Your task to perform on an android device: find photos in the google photos app Image 0: 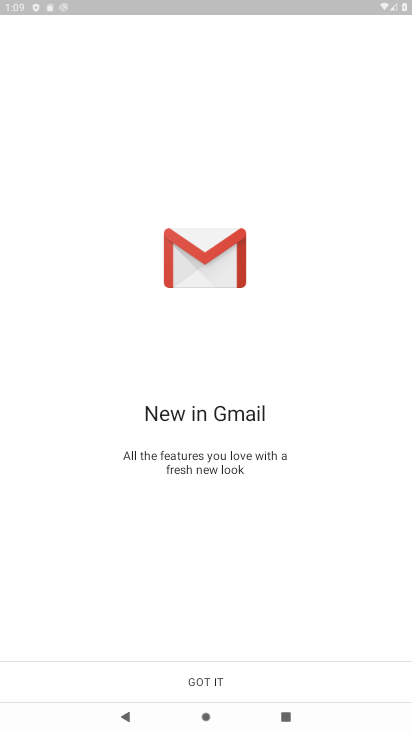
Step 0: drag from (295, 623) to (277, 291)
Your task to perform on an android device: find photos in the google photos app Image 1: 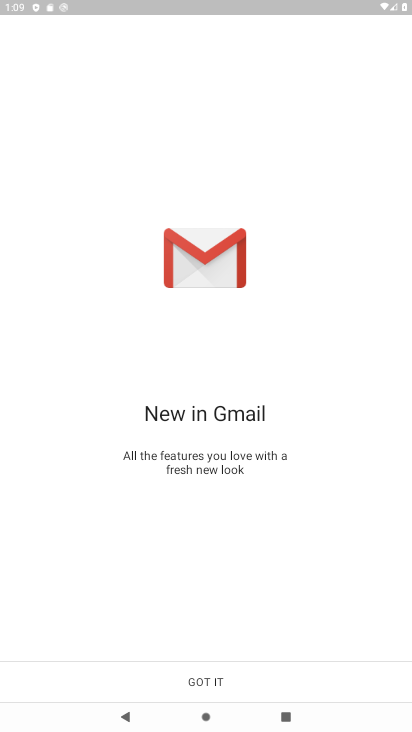
Step 1: press home button
Your task to perform on an android device: find photos in the google photos app Image 2: 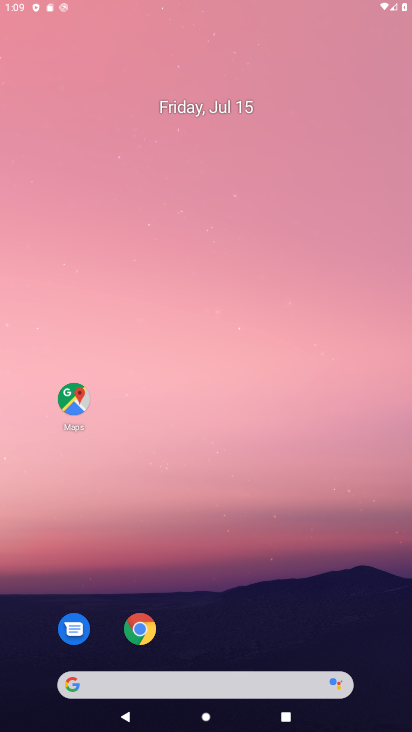
Step 2: drag from (232, 620) to (208, 62)
Your task to perform on an android device: find photos in the google photos app Image 3: 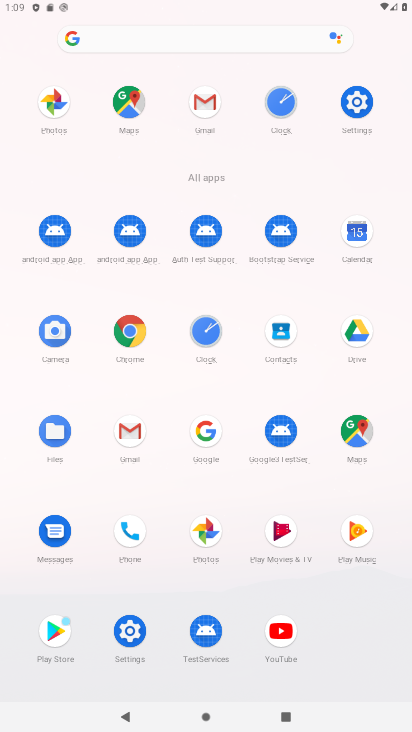
Step 3: click (196, 529)
Your task to perform on an android device: find photos in the google photos app Image 4: 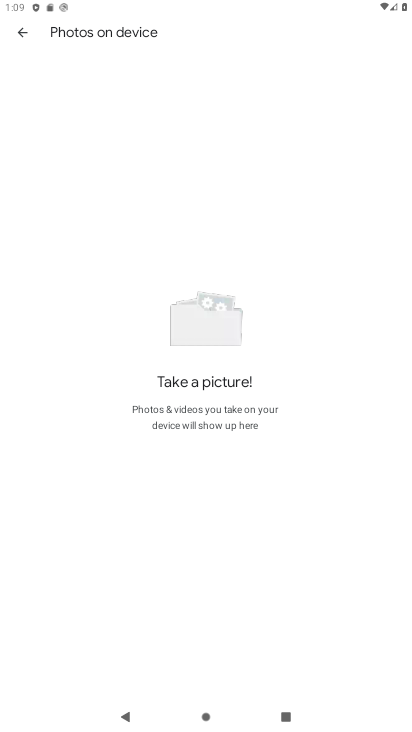
Step 4: click (22, 35)
Your task to perform on an android device: find photos in the google photos app Image 5: 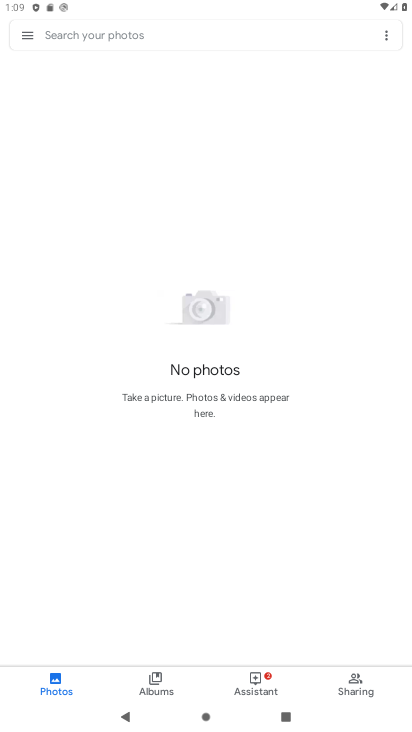
Step 5: task complete